Your task to perform on an android device: toggle javascript in the chrome app Image 0: 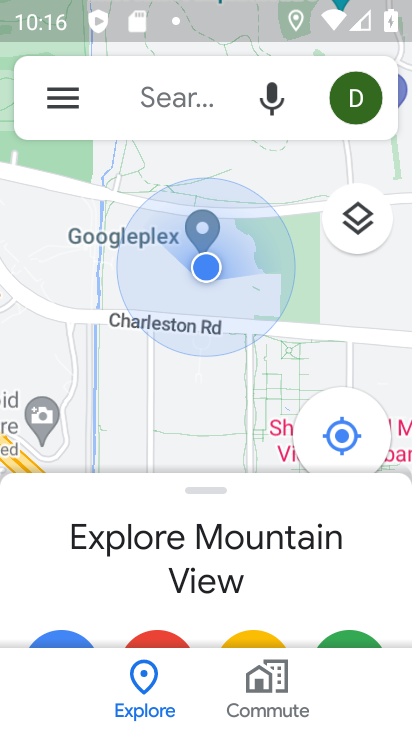
Step 0: press home button
Your task to perform on an android device: toggle javascript in the chrome app Image 1: 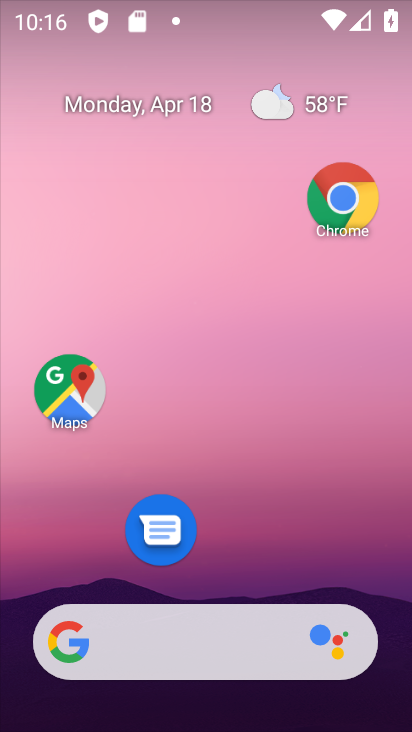
Step 1: drag from (154, 585) to (200, 189)
Your task to perform on an android device: toggle javascript in the chrome app Image 2: 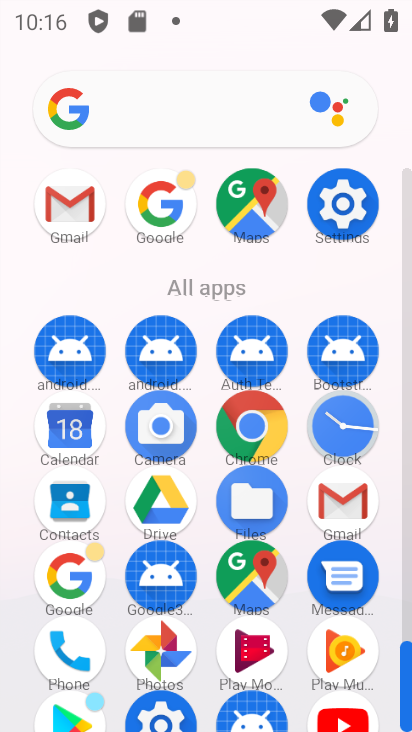
Step 2: click (243, 420)
Your task to perform on an android device: toggle javascript in the chrome app Image 3: 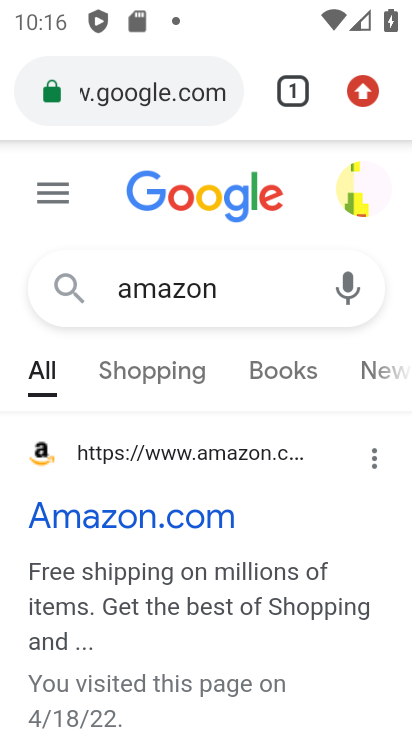
Step 3: click (369, 92)
Your task to perform on an android device: toggle javascript in the chrome app Image 4: 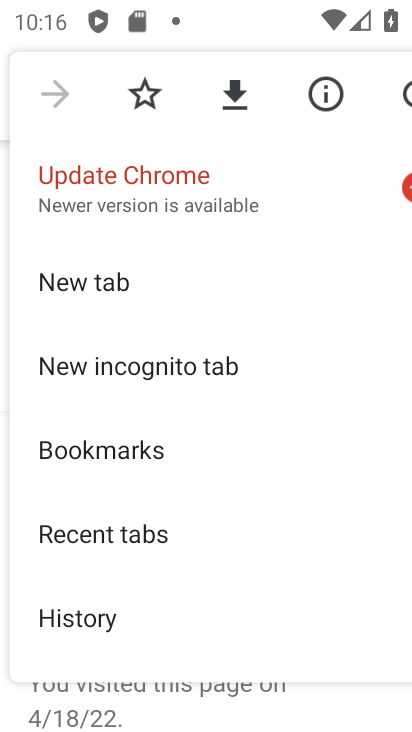
Step 4: drag from (146, 541) to (193, 139)
Your task to perform on an android device: toggle javascript in the chrome app Image 5: 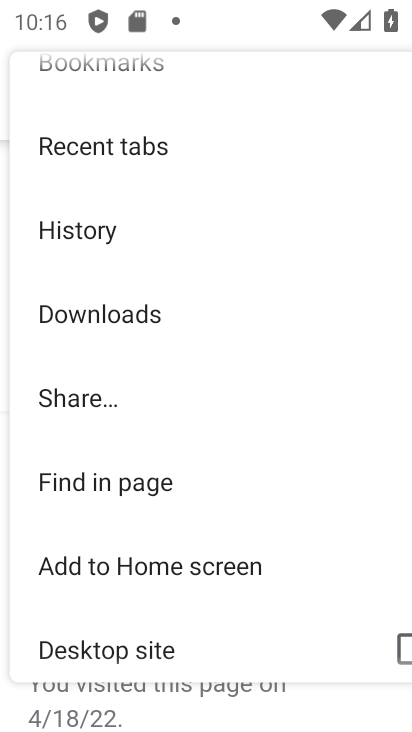
Step 5: drag from (142, 503) to (192, 226)
Your task to perform on an android device: toggle javascript in the chrome app Image 6: 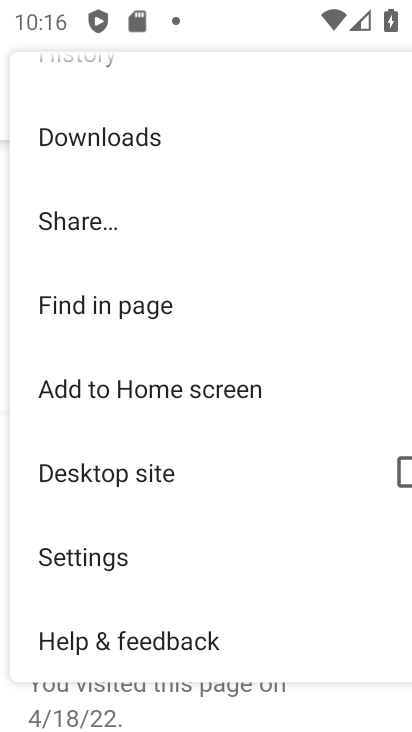
Step 6: click (94, 553)
Your task to perform on an android device: toggle javascript in the chrome app Image 7: 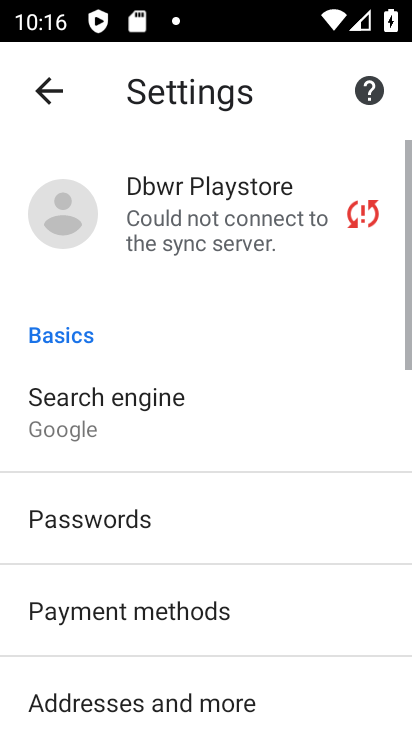
Step 7: drag from (192, 577) to (258, 252)
Your task to perform on an android device: toggle javascript in the chrome app Image 8: 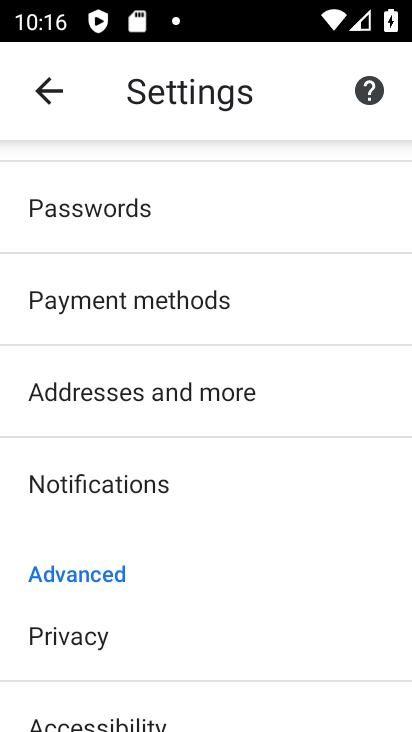
Step 8: drag from (170, 525) to (222, 298)
Your task to perform on an android device: toggle javascript in the chrome app Image 9: 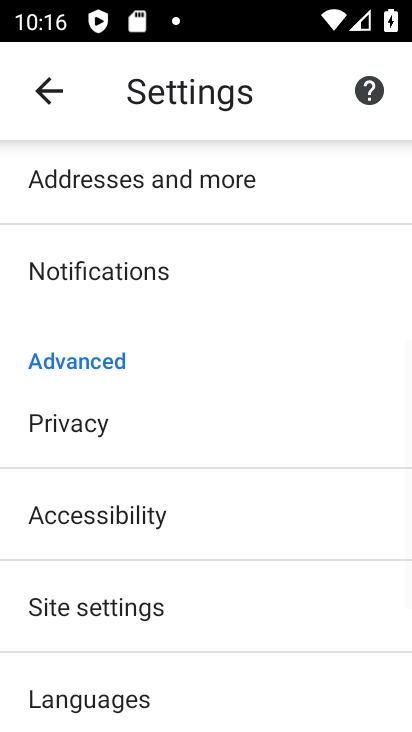
Step 9: click (97, 600)
Your task to perform on an android device: toggle javascript in the chrome app Image 10: 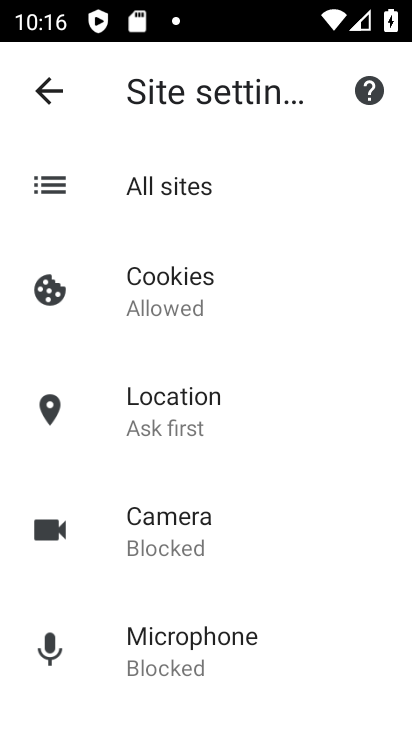
Step 10: drag from (149, 483) to (196, 249)
Your task to perform on an android device: toggle javascript in the chrome app Image 11: 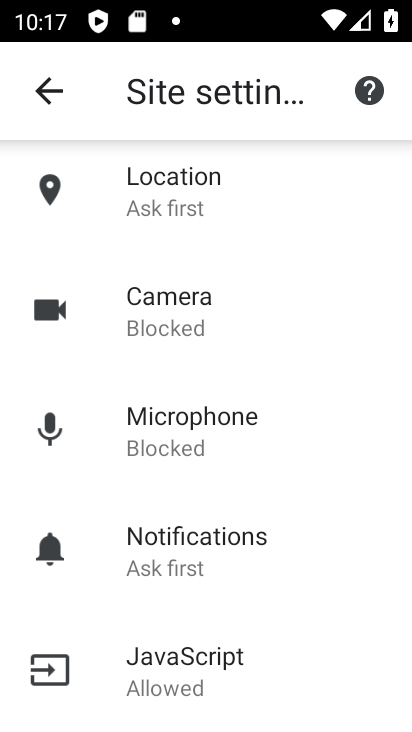
Step 11: click (175, 681)
Your task to perform on an android device: toggle javascript in the chrome app Image 12: 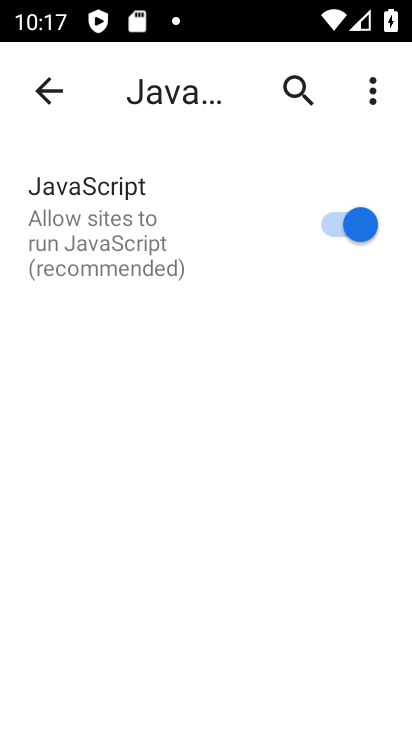
Step 12: click (332, 225)
Your task to perform on an android device: toggle javascript in the chrome app Image 13: 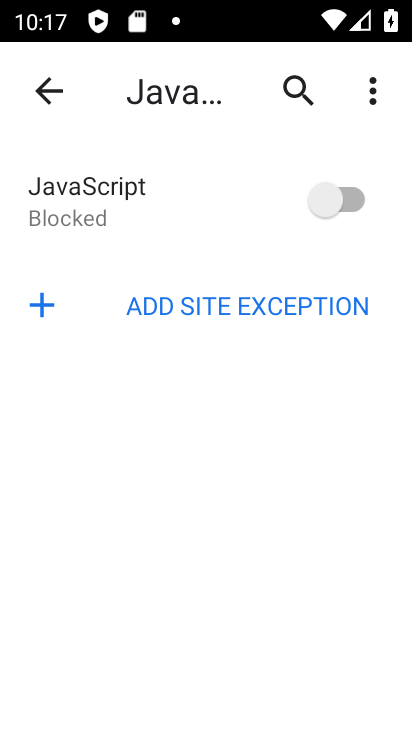
Step 13: task complete